Your task to perform on an android device: toggle notification dots Image 0: 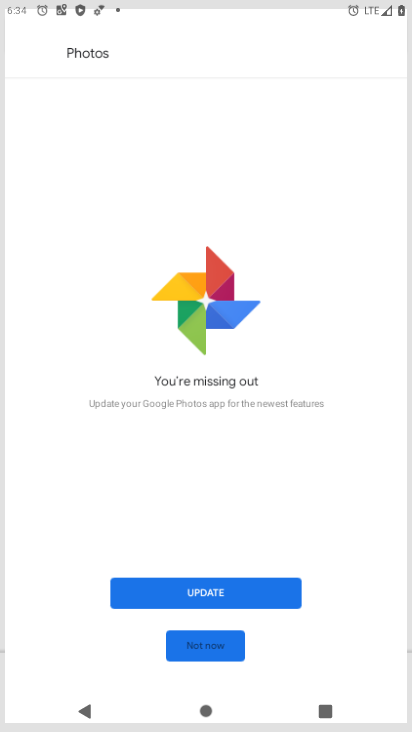
Step 0: press home button
Your task to perform on an android device: toggle notification dots Image 1: 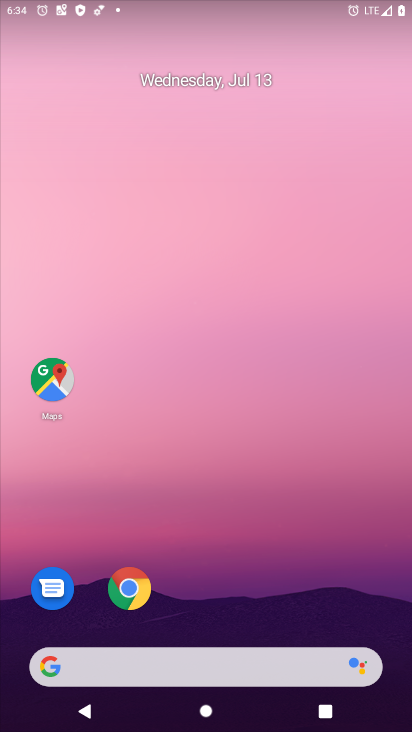
Step 1: drag from (193, 569) to (157, 3)
Your task to perform on an android device: toggle notification dots Image 2: 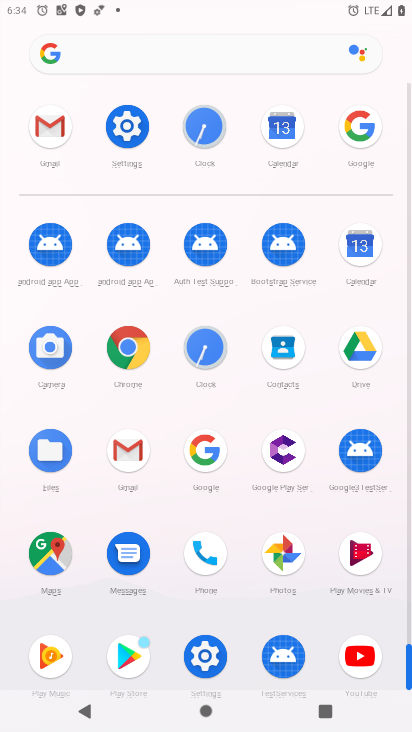
Step 2: click (122, 134)
Your task to perform on an android device: toggle notification dots Image 3: 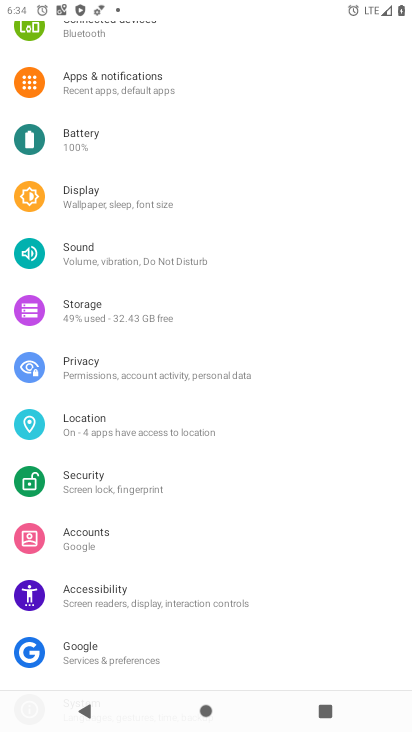
Step 3: click (117, 84)
Your task to perform on an android device: toggle notification dots Image 4: 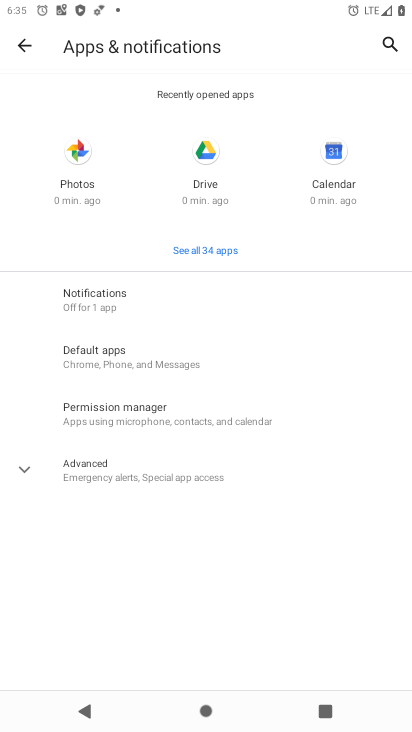
Step 4: click (88, 296)
Your task to perform on an android device: toggle notification dots Image 5: 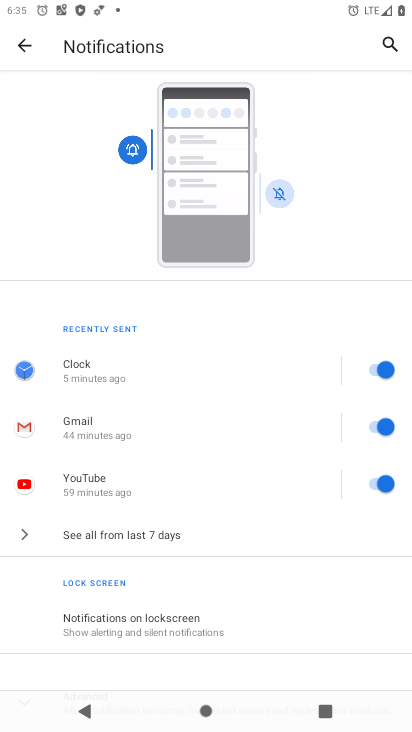
Step 5: drag from (109, 400) to (108, 244)
Your task to perform on an android device: toggle notification dots Image 6: 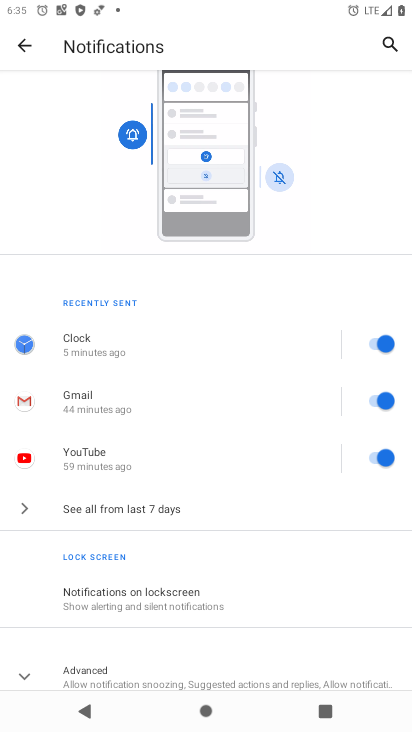
Step 6: drag from (117, 634) to (116, 431)
Your task to perform on an android device: toggle notification dots Image 7: 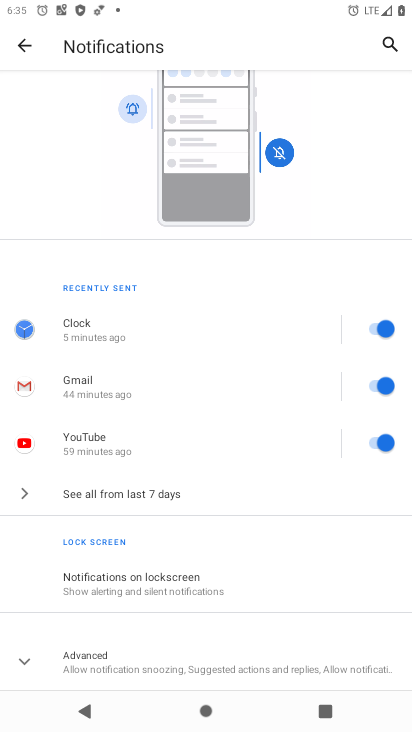
Step 7: click (89, 661)
Your task to perform on an android device: toggle notification dots Image 8: 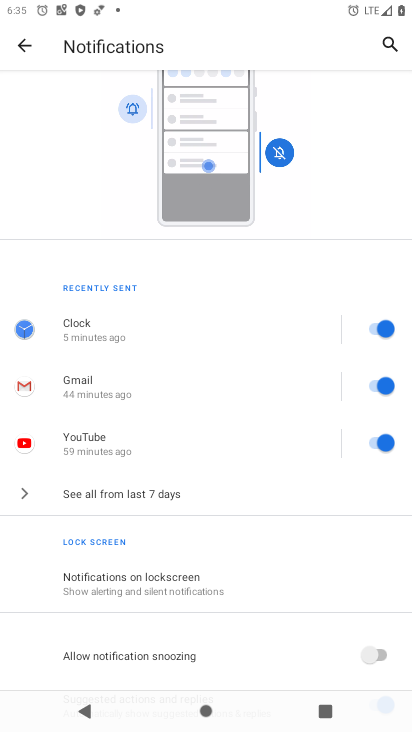
Step 8: drag from (99, 620) to (123, 426)
Your task to perform on an android device: toggle notification dots Image 9: 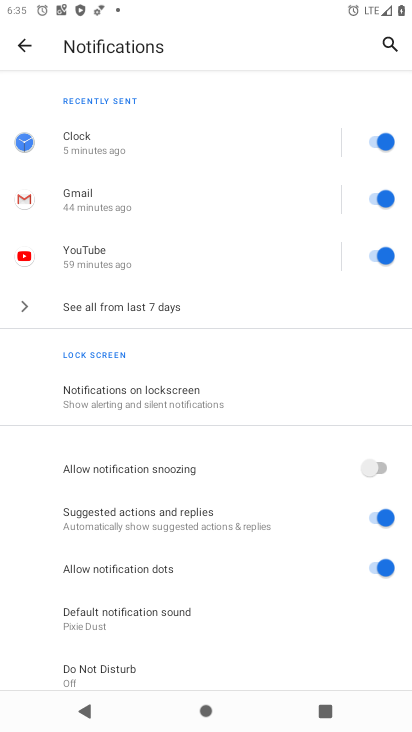
Step 9: click (371, 567)
Your task to perform on an android device: toggle notification dots Image 10: 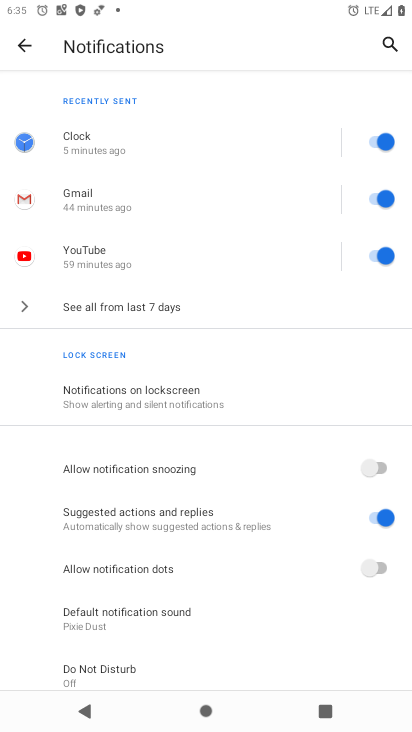
Step 10: task complete